Your task to perform on an android device: Do I have any events today? Image 0: 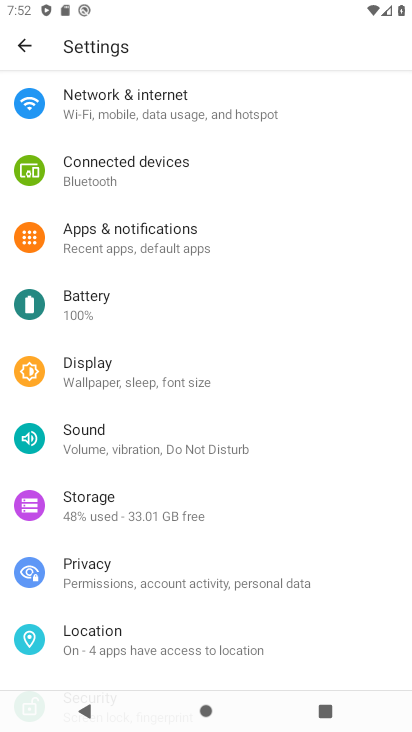
Step 0: click (111, 108)
Your task to perform on an android device: Do I have any events today? Image 1: 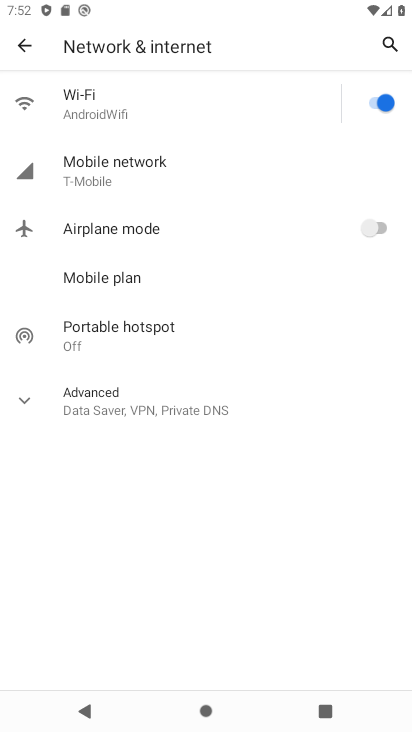
Step 1: click (95, 154)
Your task to perform on an android device: Do I have any events today? Image 2: 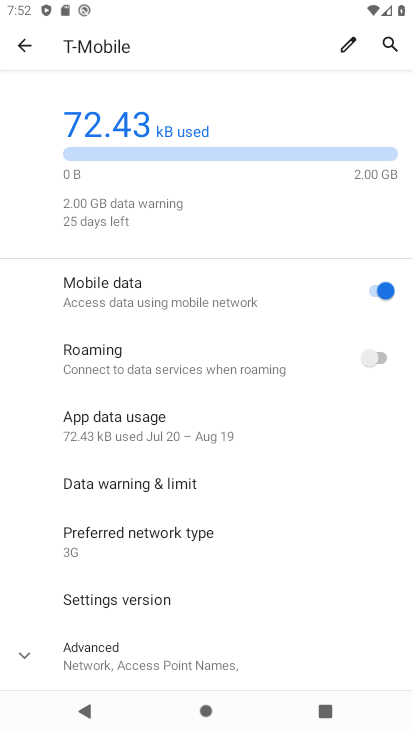
Step 2: task complete